Your task to perform on an android device: toggle notification dots Image 0: 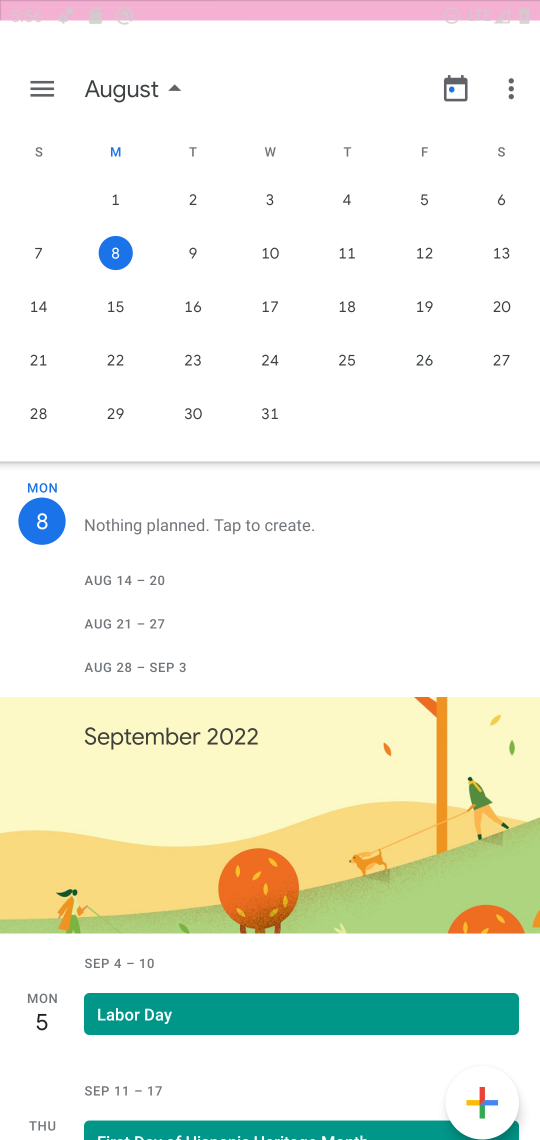
Step 0: press home button
Your task to perform on an android device: toggle notification dots Image 1: 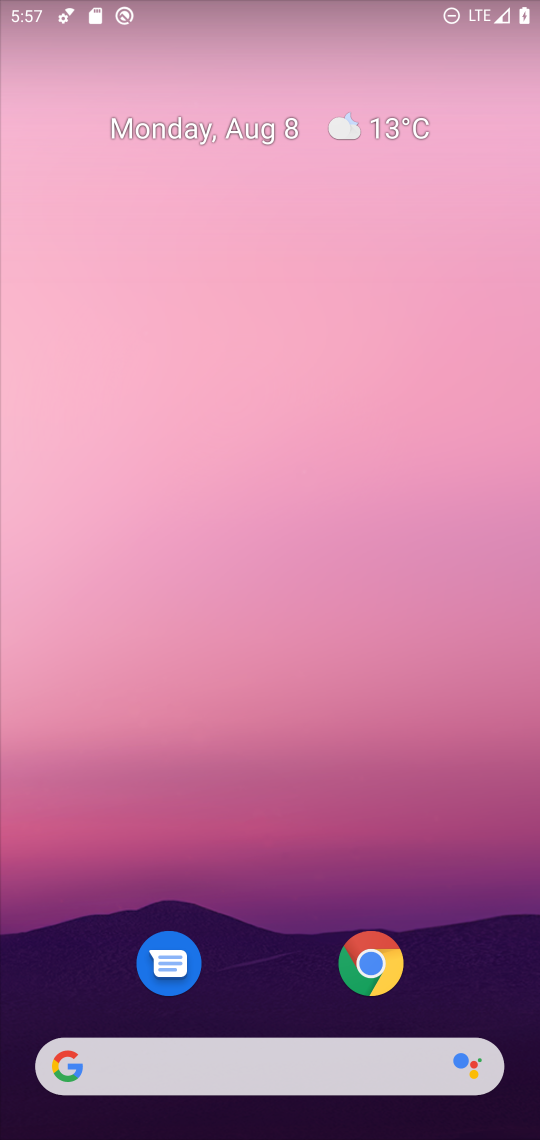
Step 1: drag from (261, 949) to (258, 113)
Your task to perform on an android device: toggle notification dots Image 2: 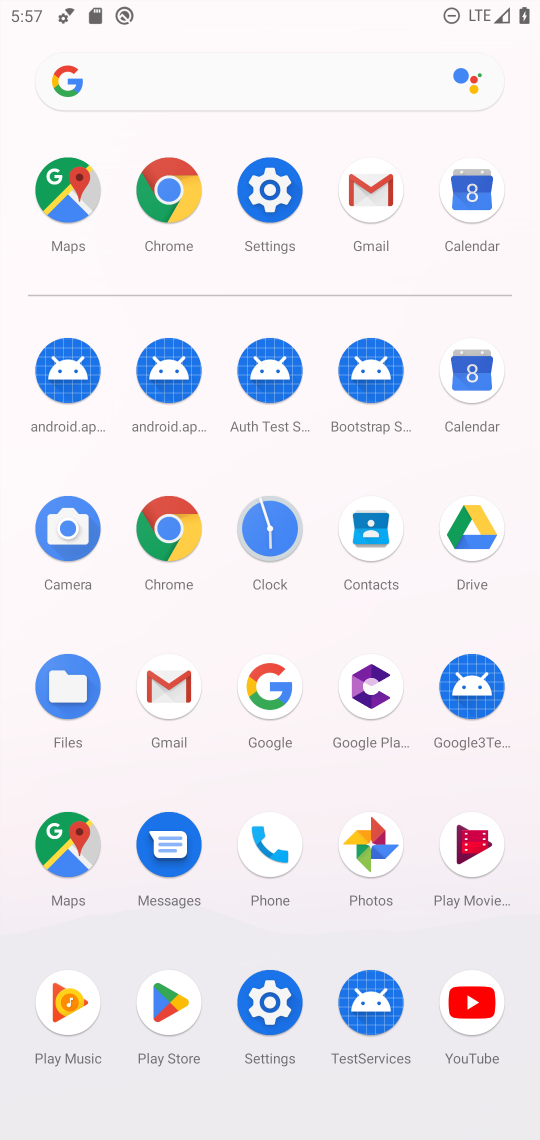
Step 2: click (271, 168)
Your task to perform on an android device: toggle notification dots Image 3: 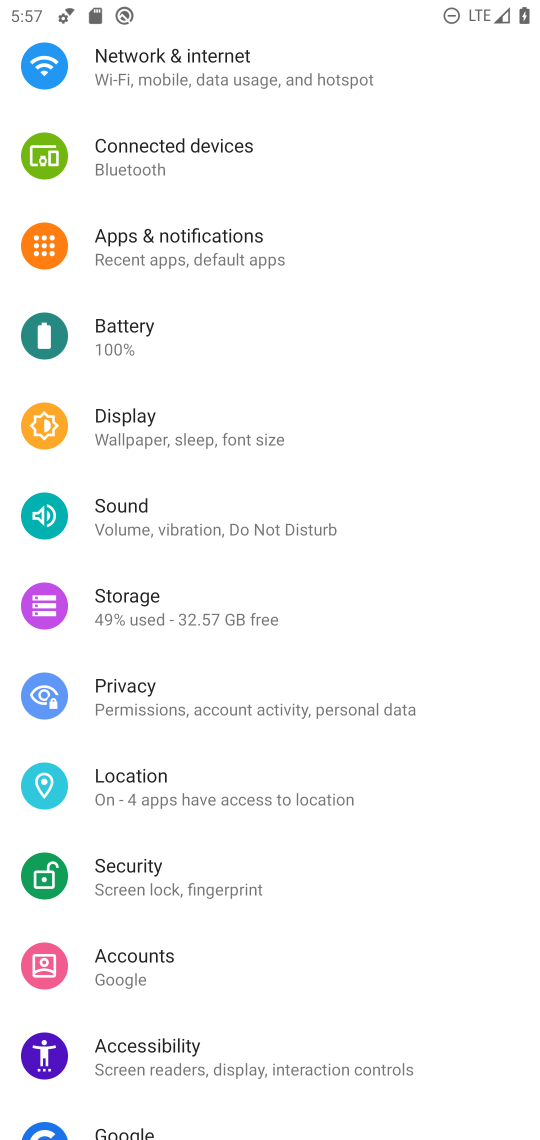
Step 3: click (264, 249)
Your task to perform on an android device: toggle notification dots Image 4: 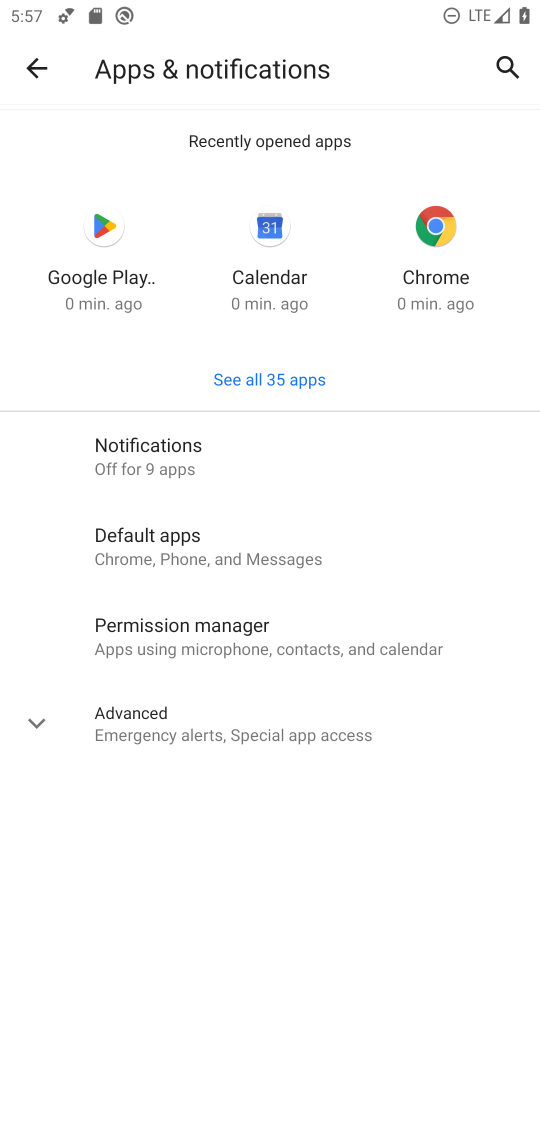
Step 4: click (231, 435)
Your task to perform on an android device: toggle notification dots Image 5: 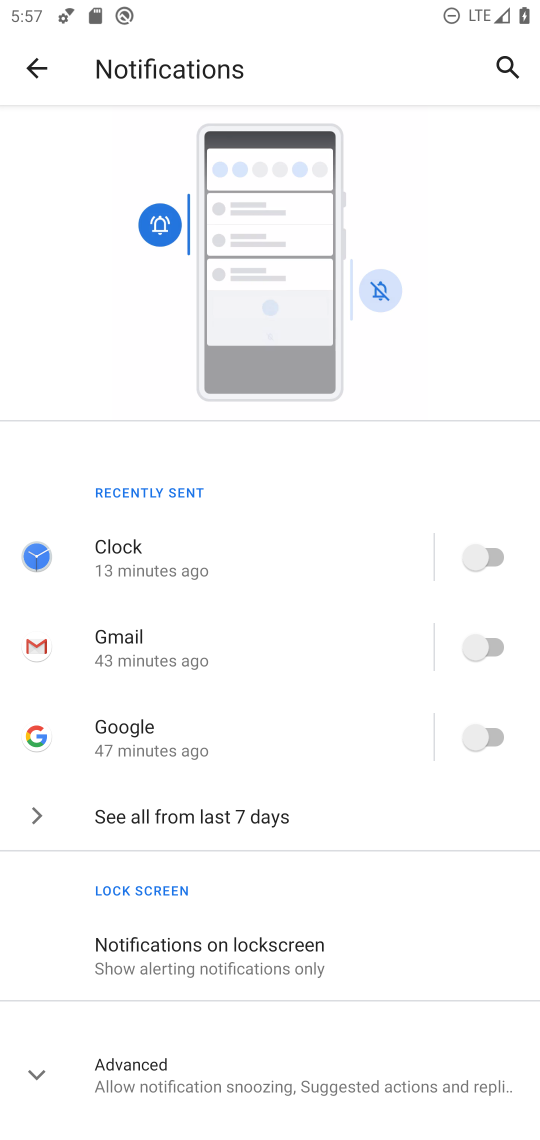
Step 5: click (266, 1061)
Your task to perform on an android device: toggle notification dots Image 6: 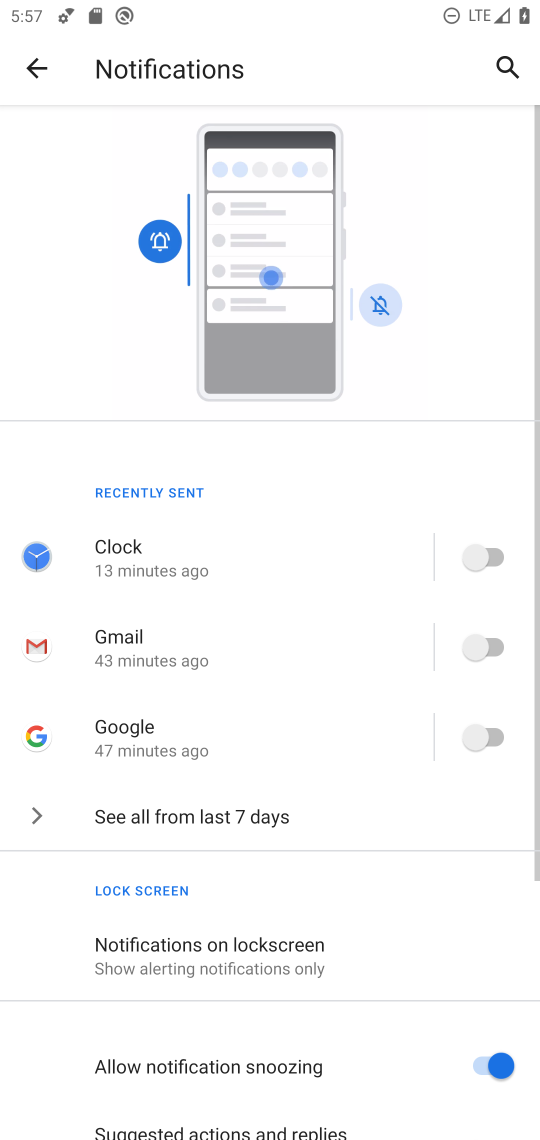
Step 6: drag from (266, 1061) to (265, 488)
Your task to perform on an android device: toggle notification dots Image 7: 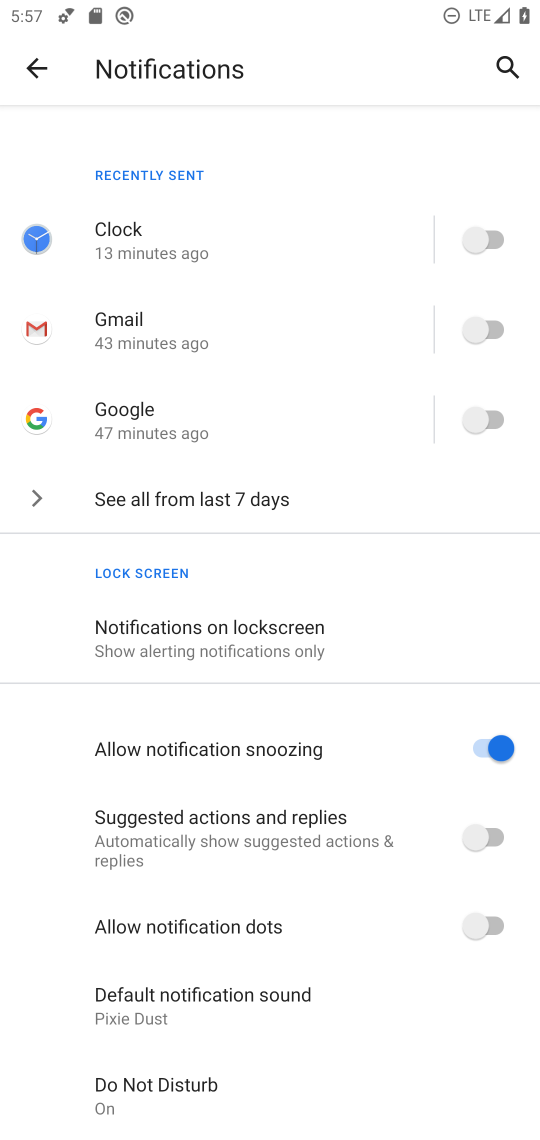
Step 7: click (512, 919)
Your task to perform on an android device: toggle notification dots Image 8: 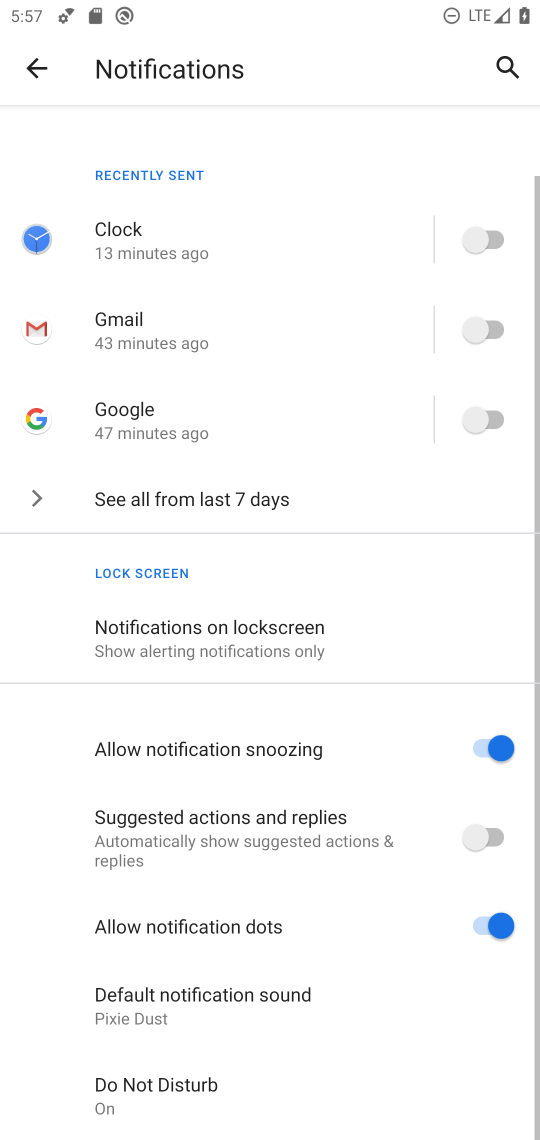
Step 8: task complete